Your task to perform on an android device: What's a good restaurant in Chicago? Image 0: 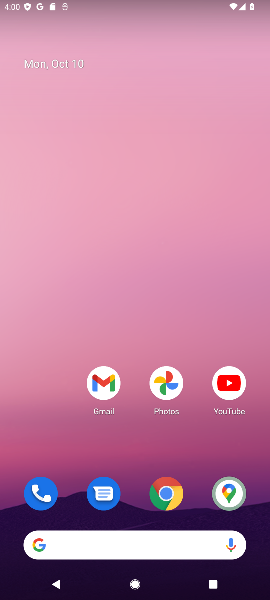
Step 0: click (85, 542)
Your task to perform on an android device: What's a good restaurant in Chicago? Image 1: 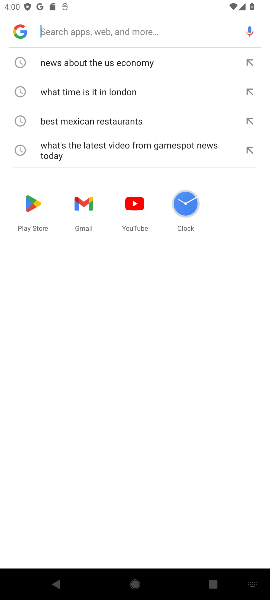
Step 1: type " good restaurant in Chicago"
Your task to perform on an android device: What's a good restaurant in Chicago? Image 2: 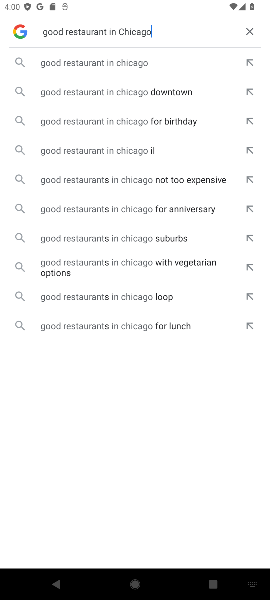
Step 2: click (138, 75)
Your task to perform on an android device: What's a good restaurant in Chicago? Image 3: 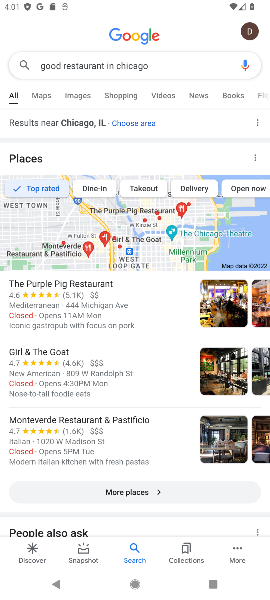
Step 3: task complete